Your task to perform on an android device: see tabs open on other devices in the chrome app Image 0: 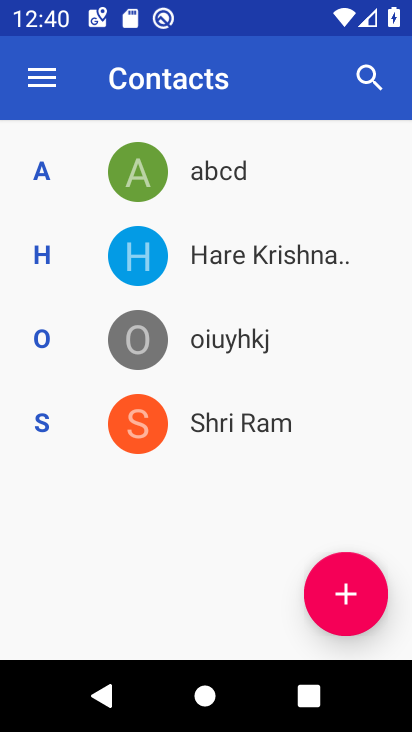
Step 0: press home button
Your task to perform on an android device: see tabs open on other devices in the chrome app Image 1: 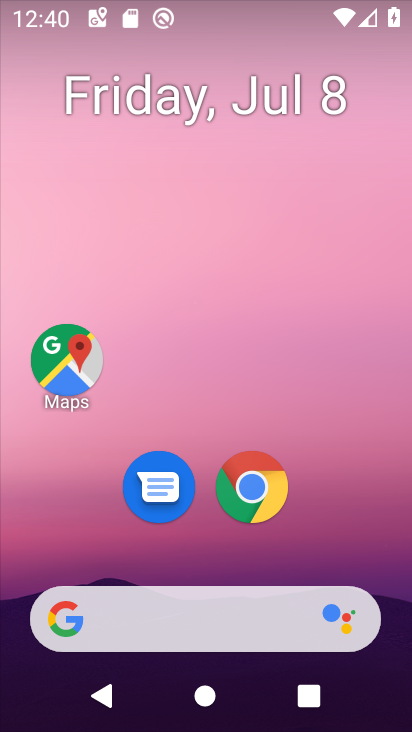
Step 1: drag from (356, 556) to (362, 191)
Your task to perform on an android device: see tabs open on other devices in the chrome app Image 2: 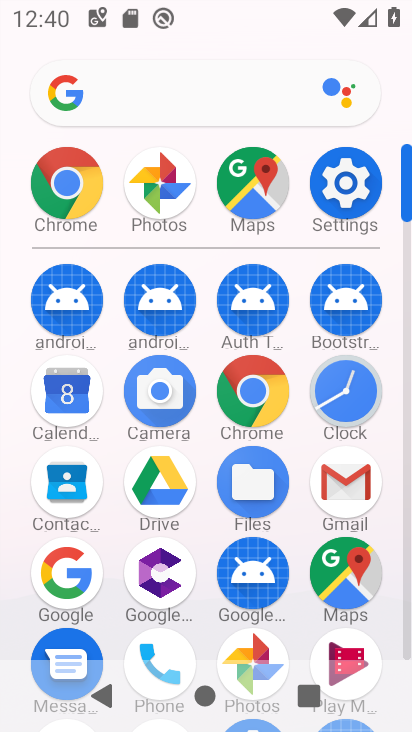
Step 2: click (264, 387)
Your task to perform on an android device: see tabs open on other devices in the chrome app Image 3: 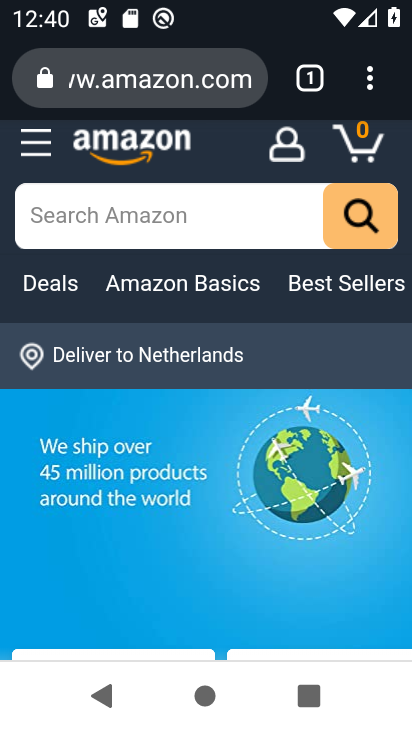
Step 3: click (375, 86)
Your task to perform on an android device: see tabs open on other devices in the chrome app Image 4: 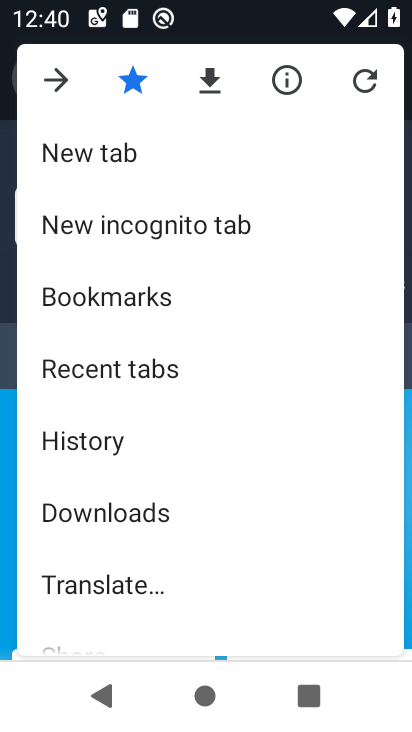
Step 4: drag from (318, 406) to (339, 300)
Your task to perform on an android device: see tabs open on other devices in the chrome app Image 5: 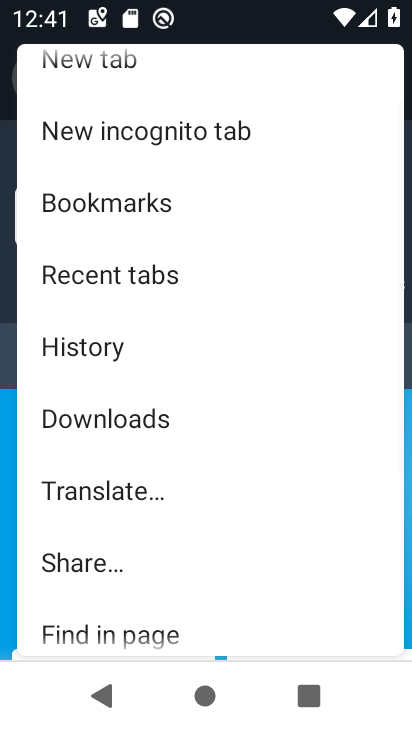
Step 5: drag from (306, 481) to (306, 355)
Your task to perform on an android device: see tabs open on other devices in the chrome app Image 6: 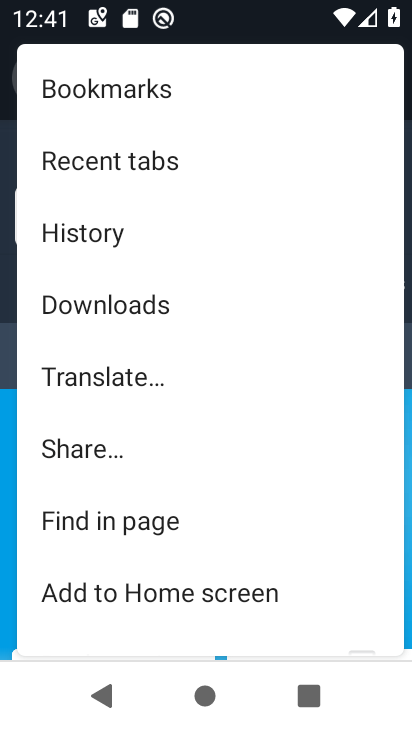
Step 6: drag from (322, 448) to (321, 373)
Your task to perform on an android device: see tabs open on other devices in the chrome app Image 7: 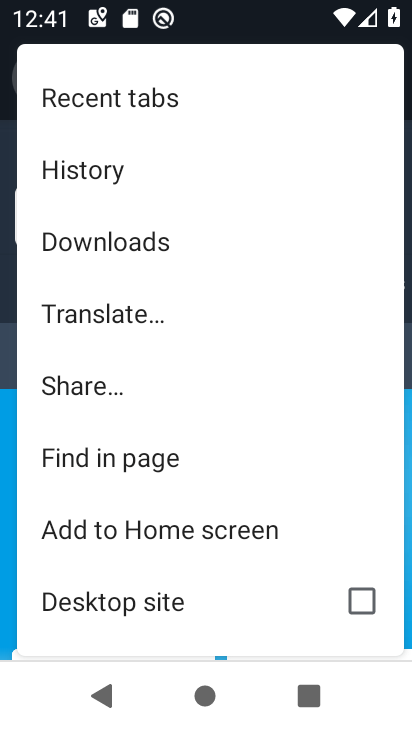
Step 7: drag from (312, 243) to (299, 392)
Your task to perform on an android device: see tabs open on other devices in the chrome app Image 8: 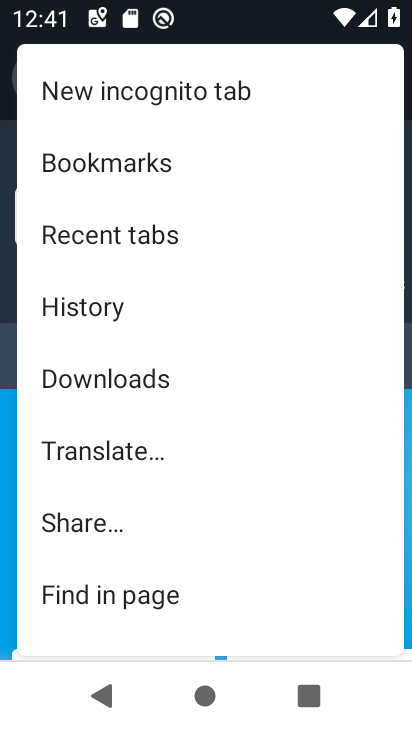
Step 8: click (191, 250)
Your task to perform on an android device: see tabs open on other devices in the chrome app Image 9: 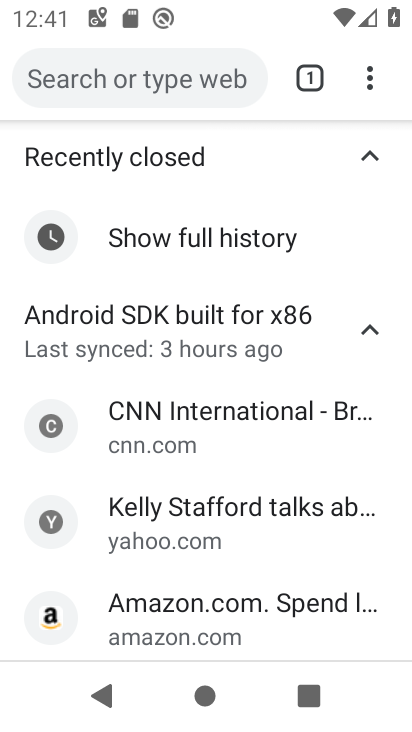
Step 9: click (318, 69)
Your task to perform on an android device: see tabs open on other devices in the chrome app Image 10: 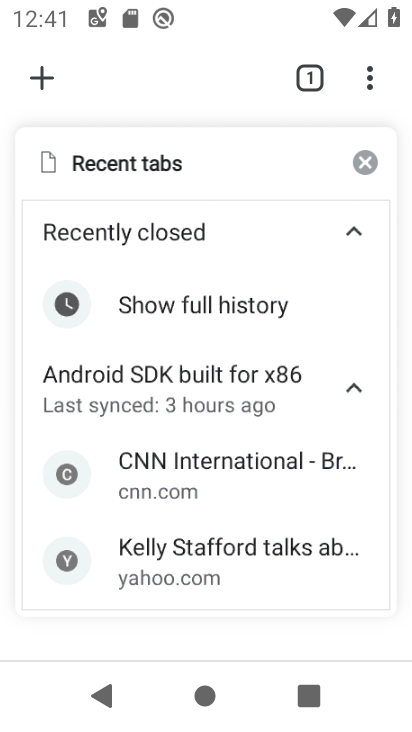
Step 10: task complete